Your task to perform on an android device: find snoozed emails in the gmail app Image 0: 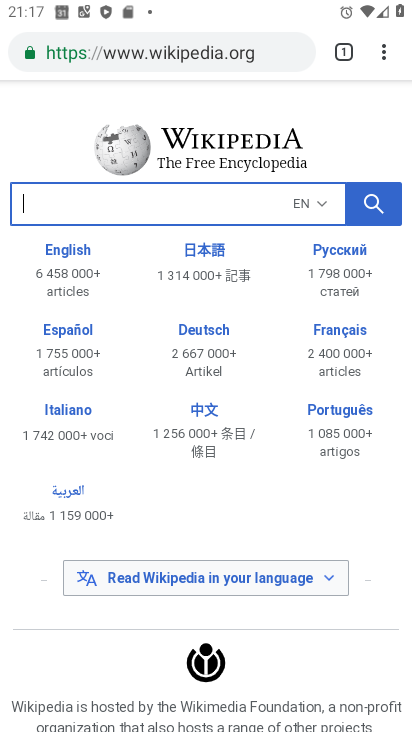
Step 0: press home button
Your task to perform on an android device: find snoozed emails in the gmail app Image 1: 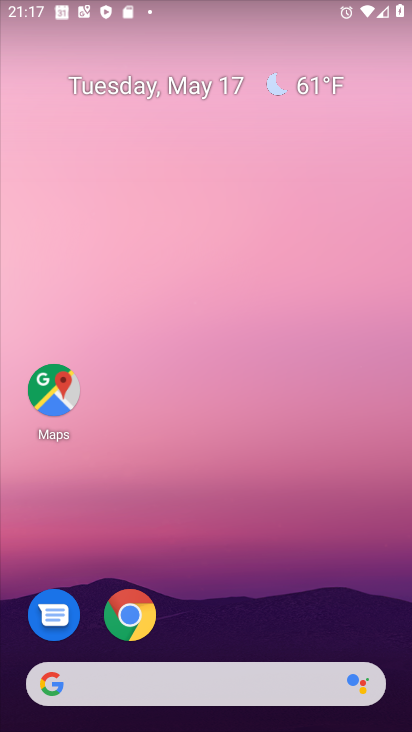
Step 1: drag from (301, 639) to (295, 113)
Your task to perform on an android device: find snoozed emails in the gmail app Image 2: 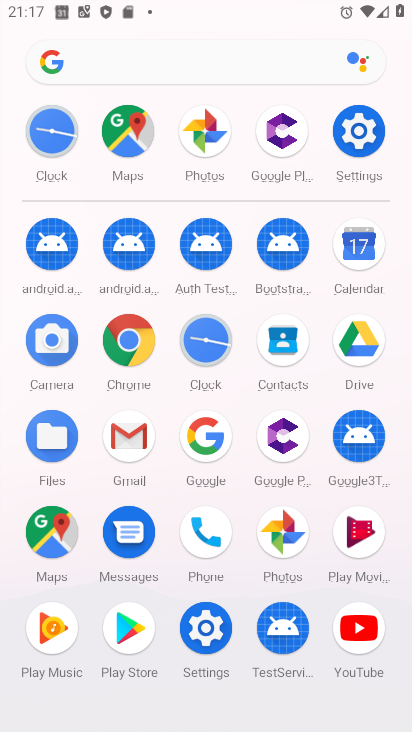
Step 2: click (119, 433)
Your task to perform on an android device: find snoozed emails in the gmail app Image 3: 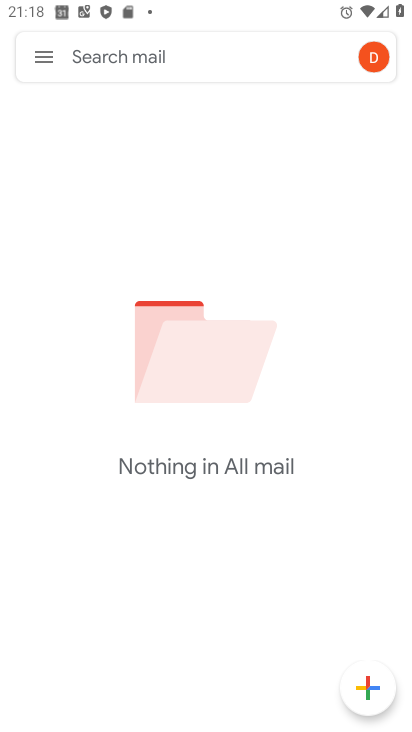
Step 3: click (50, 64)
Your task to perform on an android device: find snoozed emails in the gmail app Image 4: 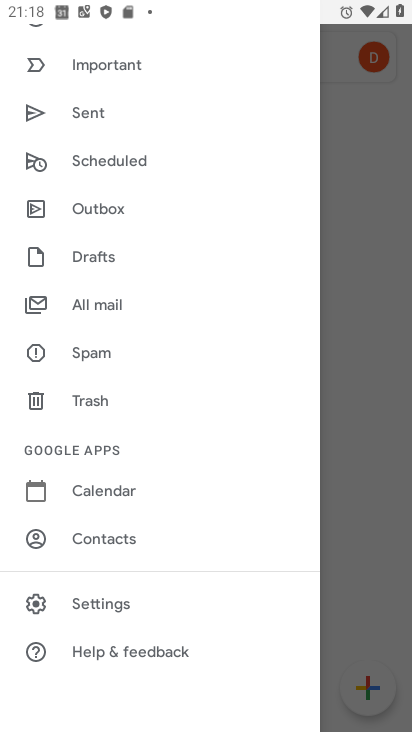
Step 4: drag from (95, 122) to (104, 502)
Your task to perform on an android device: find snoozed emails in the gmail app Image 5: 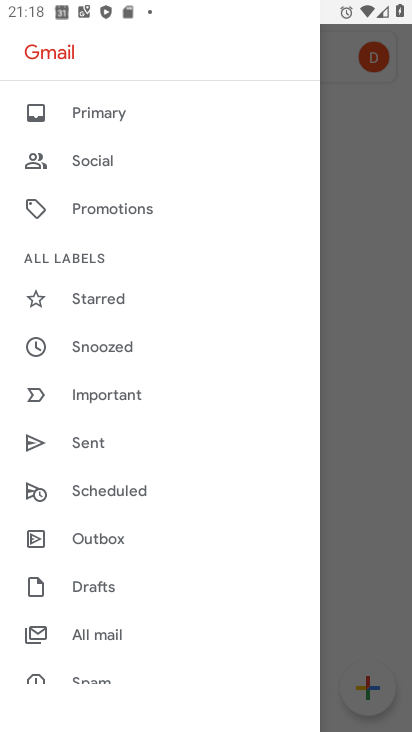
Step 5: click (110, 343)
Your task to perform on an android device: find snoozed emails in the gmail app Image 6: 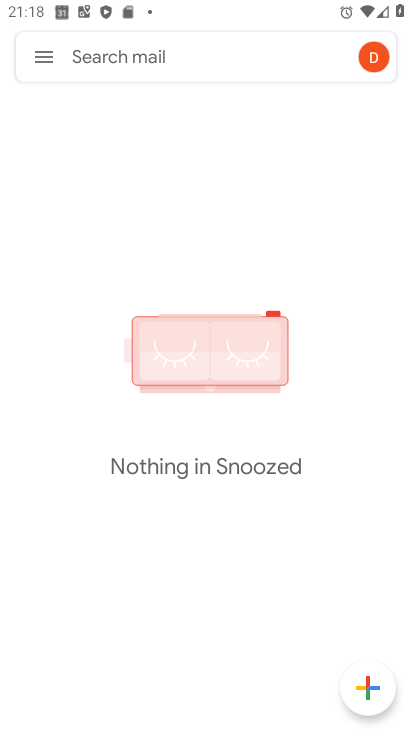
Step 6: task complete